Your task to perform on an android device: Open wifi settings Image 0: 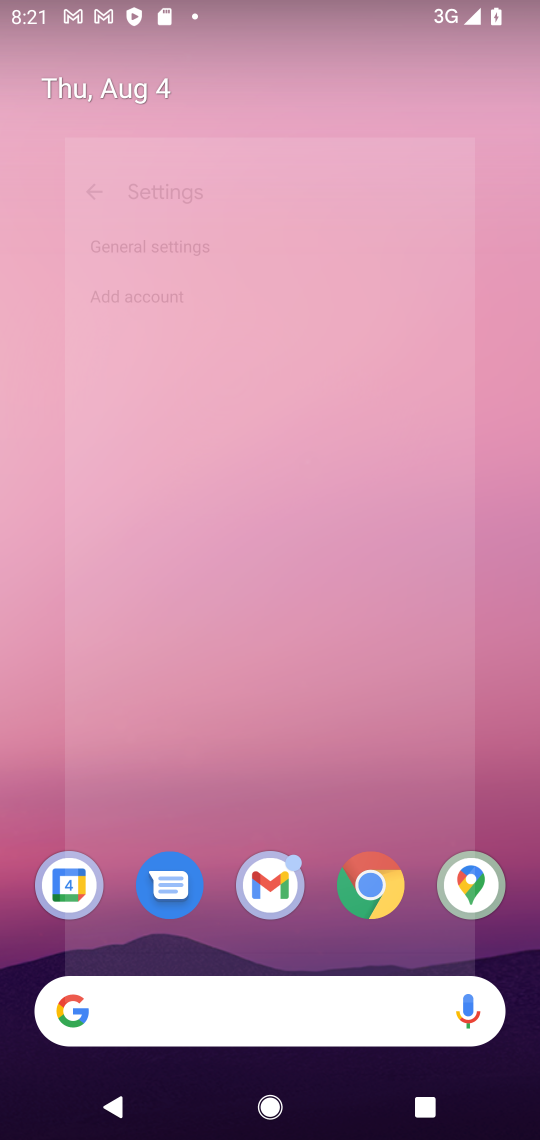
Step 0: press home button
Your task to perform on an android device: Open wifi settings Image 1: 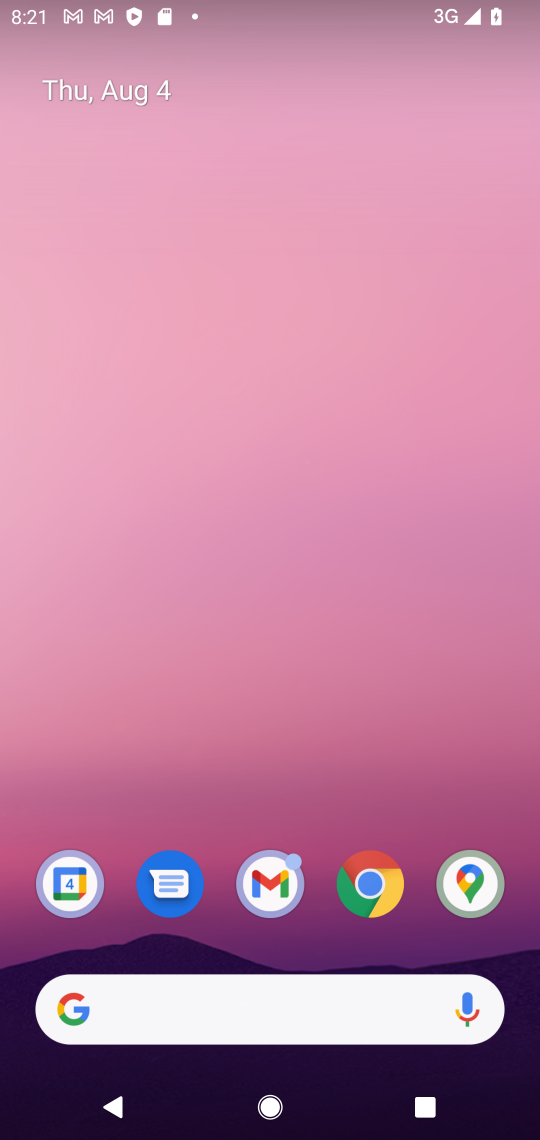
Step 1: click (539, 811)
Your task to perform on an android device: Open wifi settings Image 2: 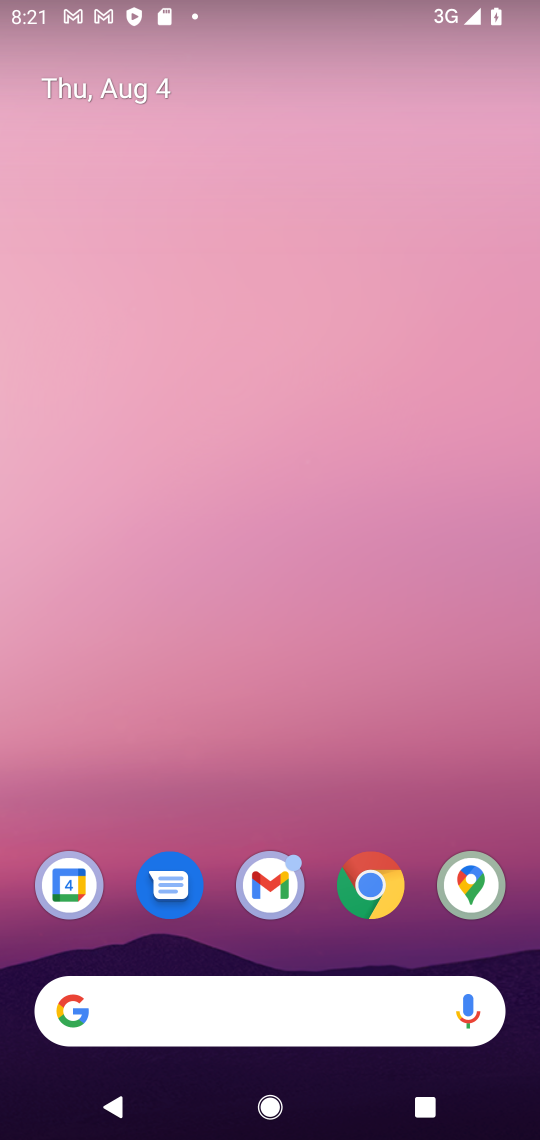
Step 2: drag from (436, 54) to (539, 1059)
Your task to perform on an android device: Open wifi settings Image 3: 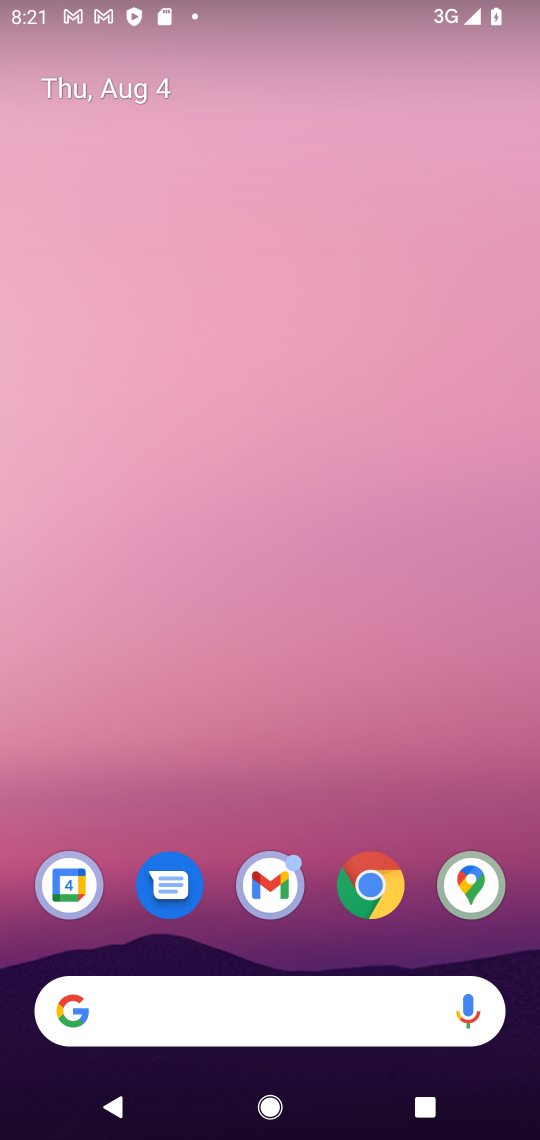
Step 3: drag from (445, 27) to (190, 1088)
Your task to perform on an android device: Open wifi settings Image 4: 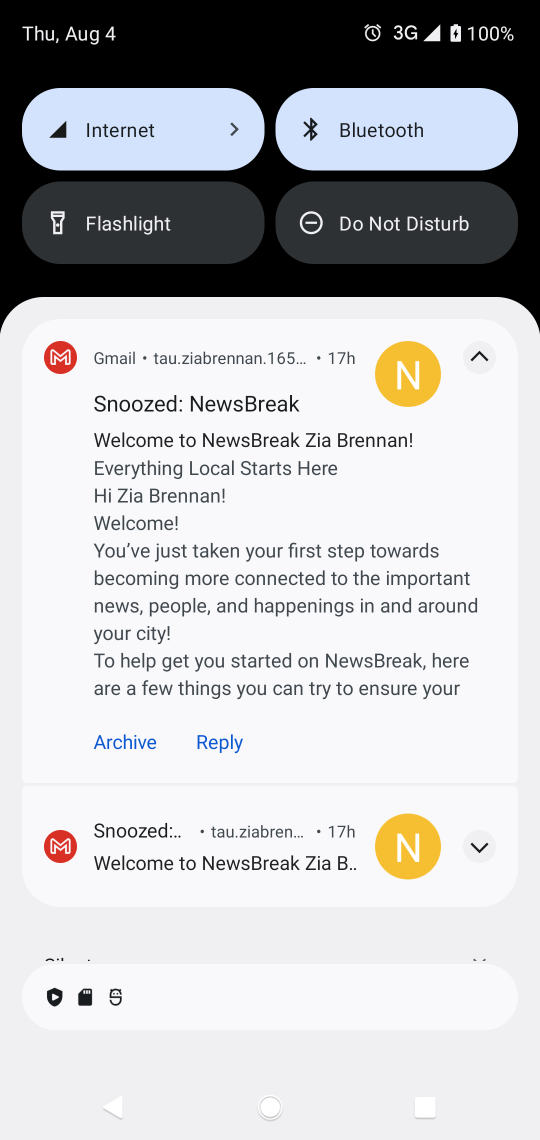
Step 4: click (227, 123)
Your task to perform on an android device: Open wifi settings Image 5: 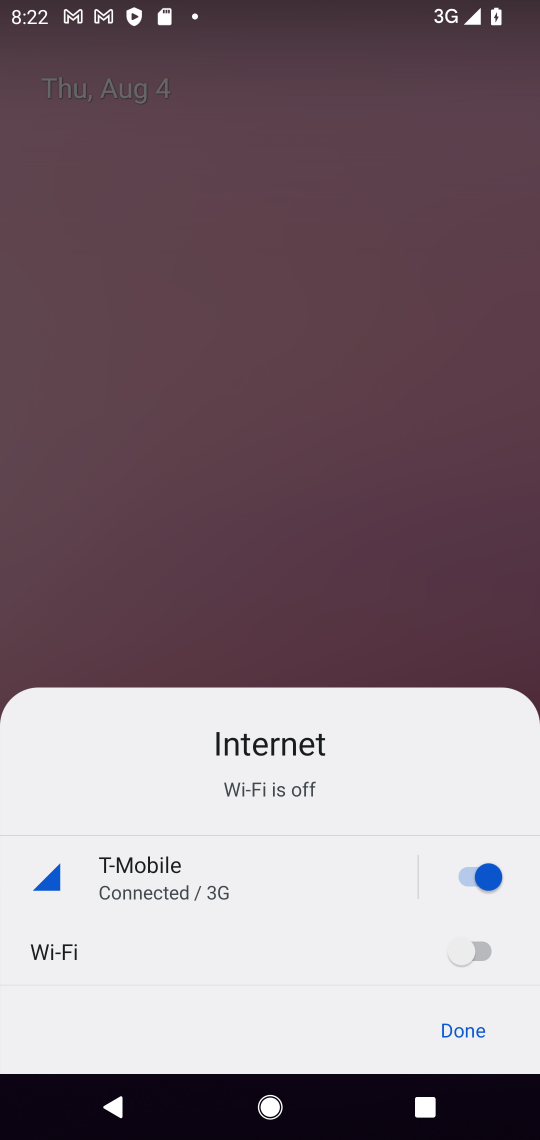
Step 5: click (63, 951)
Your task to perform on an android device: Open wifi settings Image 6: 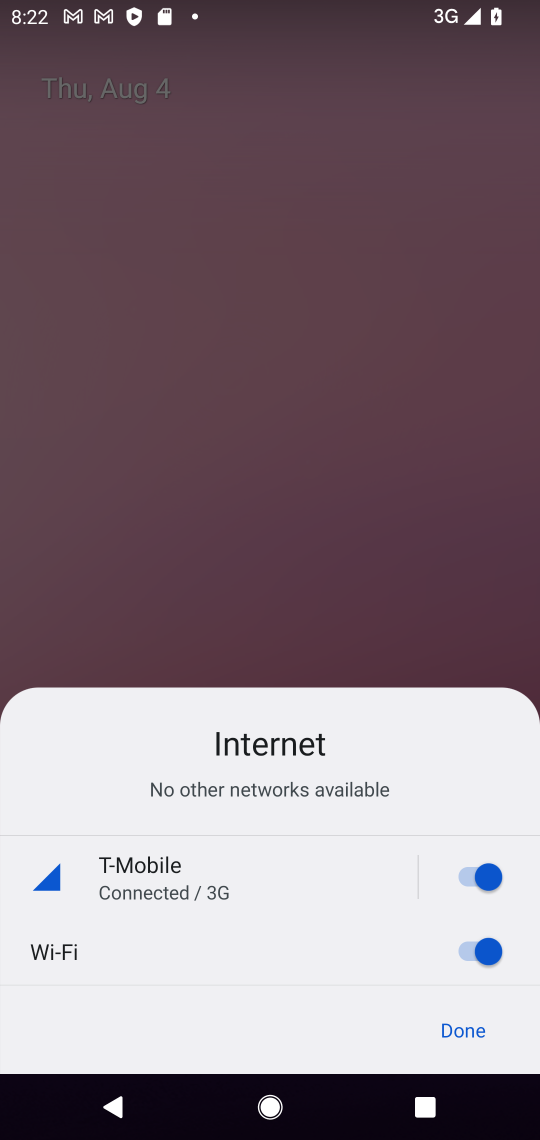
Step 6: click (63, 951)
Your task to perform on an android device: Open wifi settings Image 7: 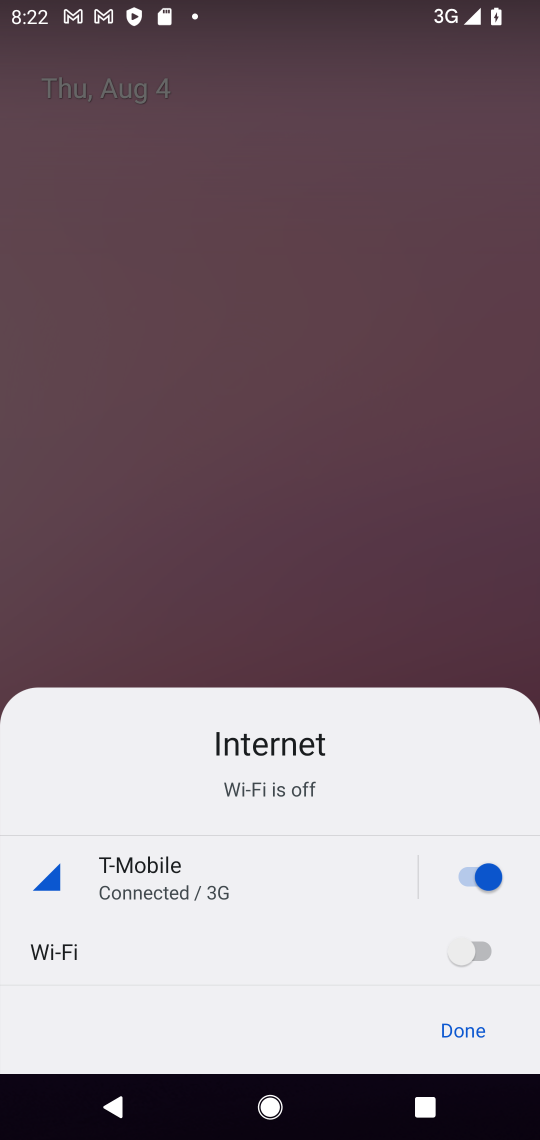
Step 7: click (63, 951)
Your task to perform on an android device: Open wifi settings Image 8: 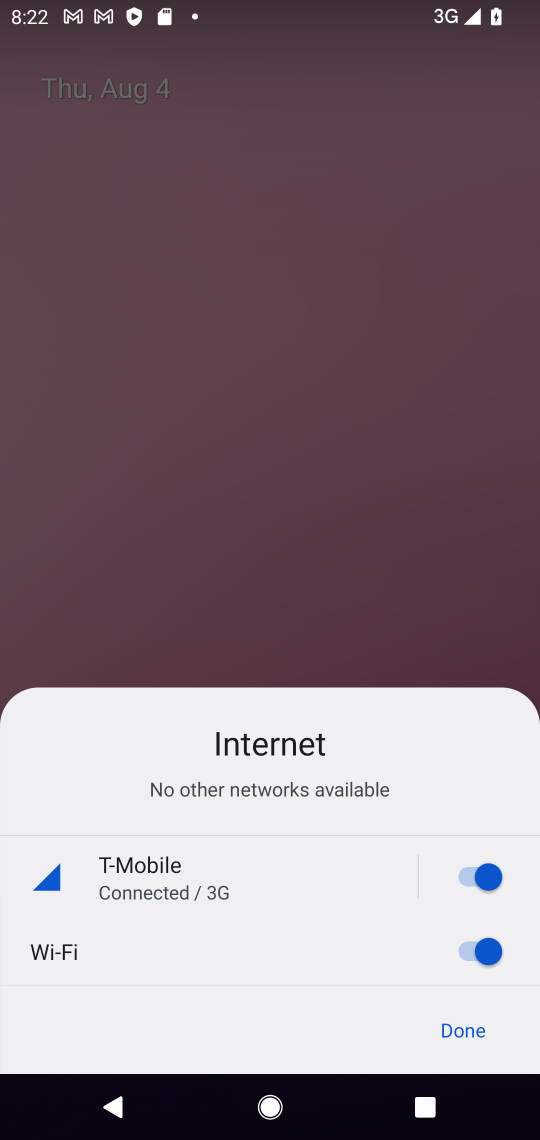
Step 8: click (63, 951)
Your task to perform on an android device: Open wifi settings Image 9: 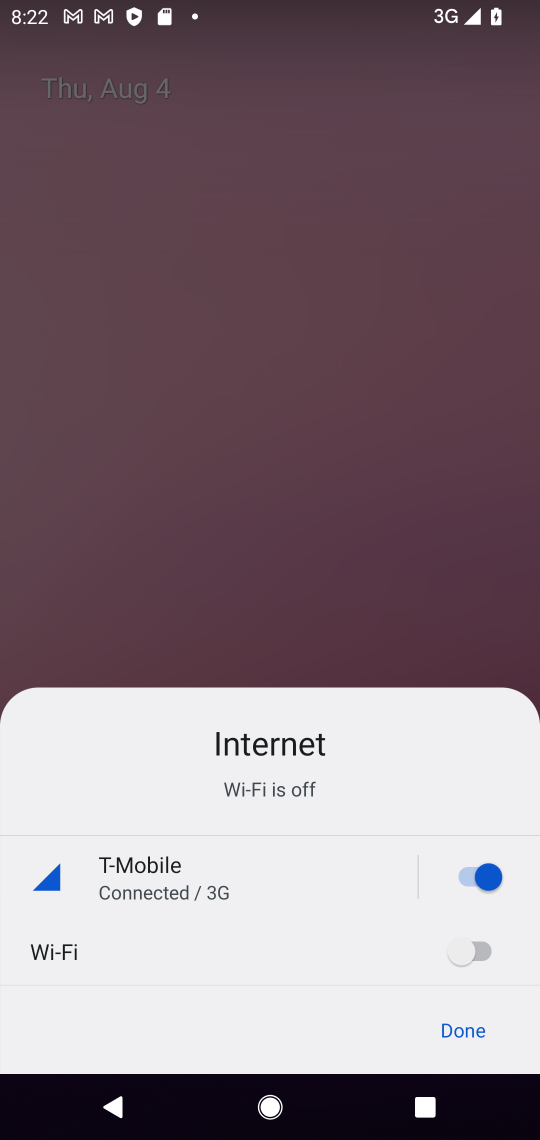
Step 9: click (463, 1040)
Your task to perform on an android device: Open wifi settings Image 10: 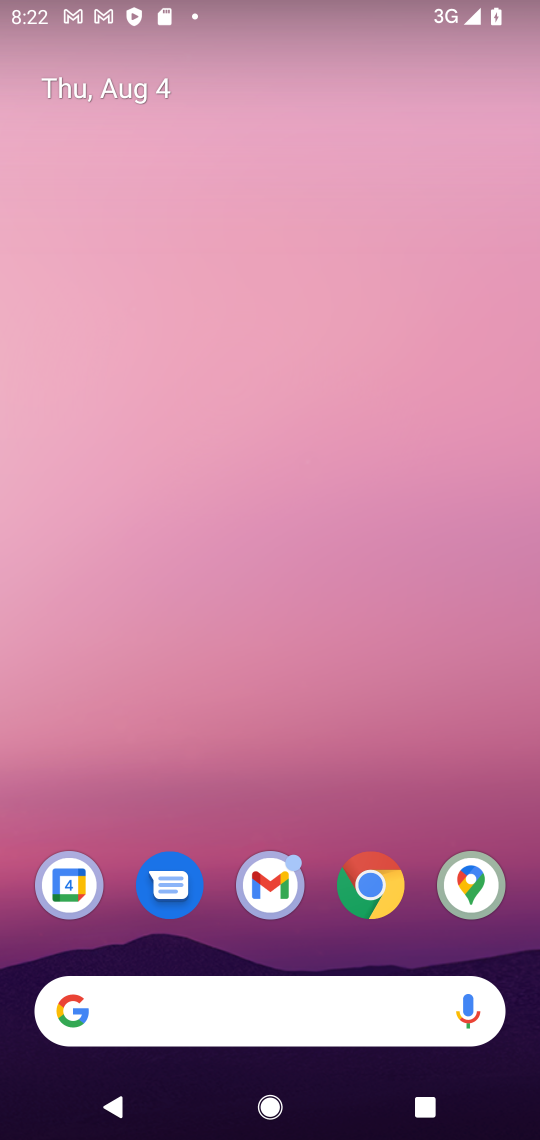
Step 10: drag from (474, 13) to (403, 362)
Your task to perform on an android device: Open wifi settings Image 11: 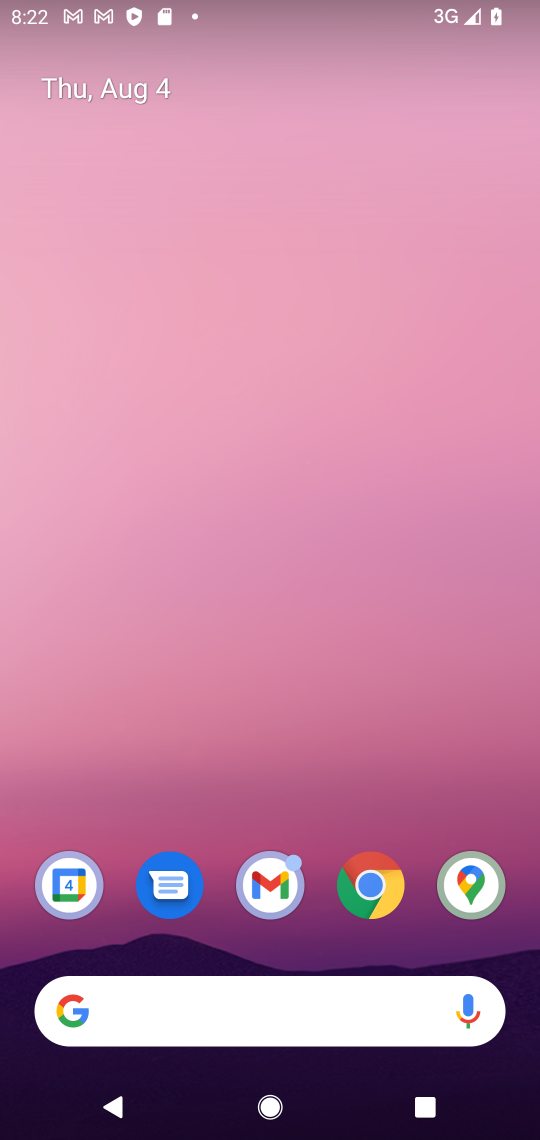
Step 11: drag from (281, 11) to (367, 1104)
Your task to perform on an android device: Open wifi settings Image 12: 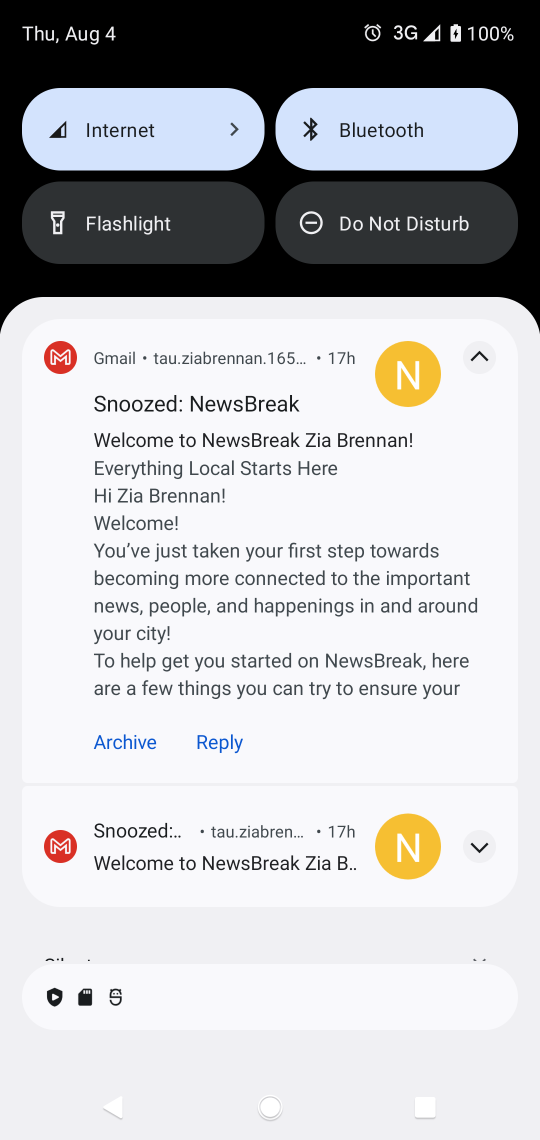
Step 12: click (138, 147)
Your task to perform on an android device: Open wifi settings Image 13: 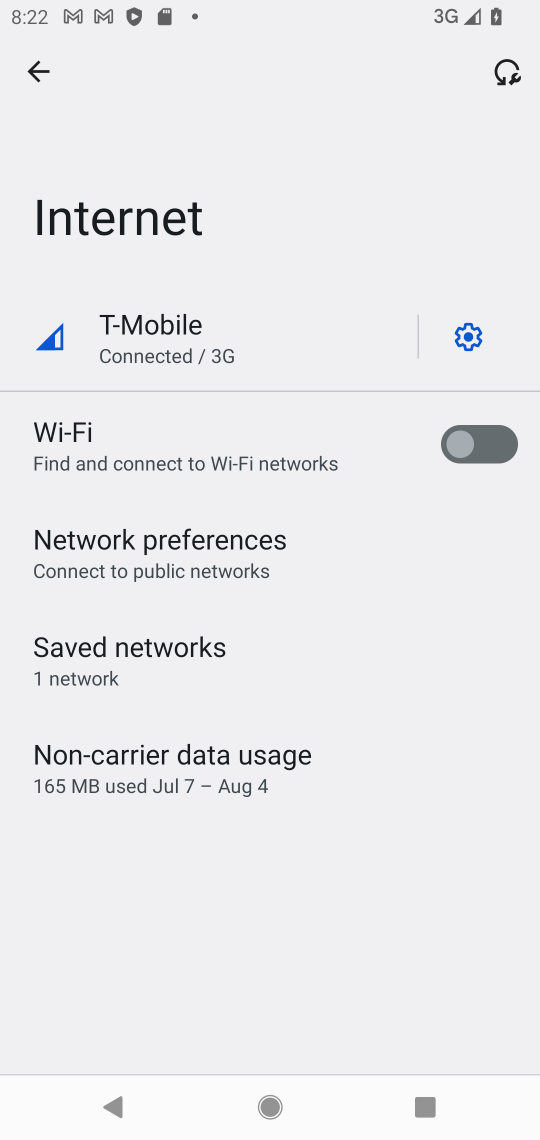
Step 13: click (469, 330)
Your task to perform on an android device: Open wifi settings Image 14: 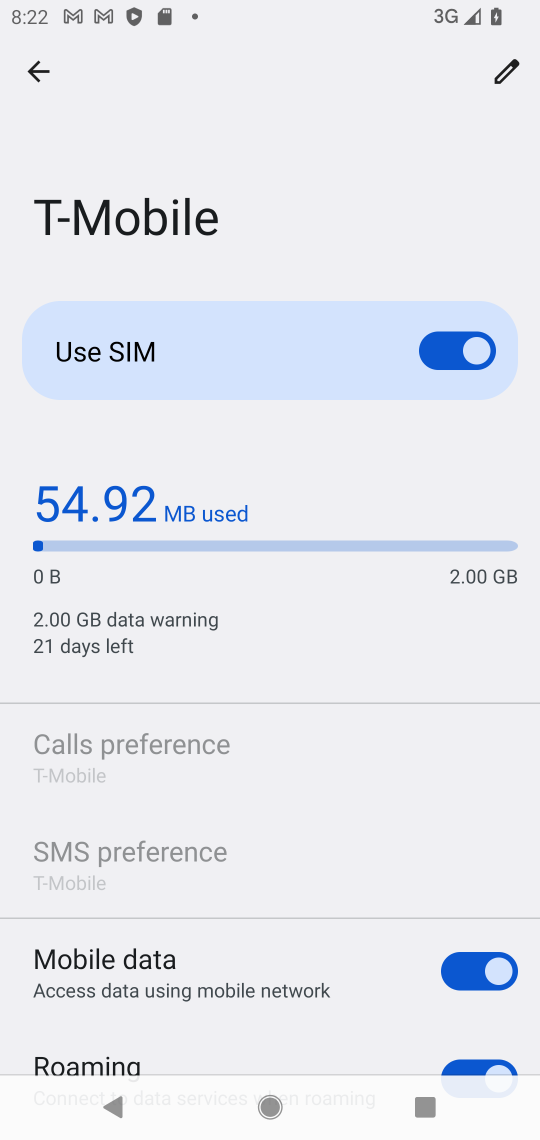
Step 14: task complete